Your task to perform on an android device: toggle improve location accuracy Image 0: 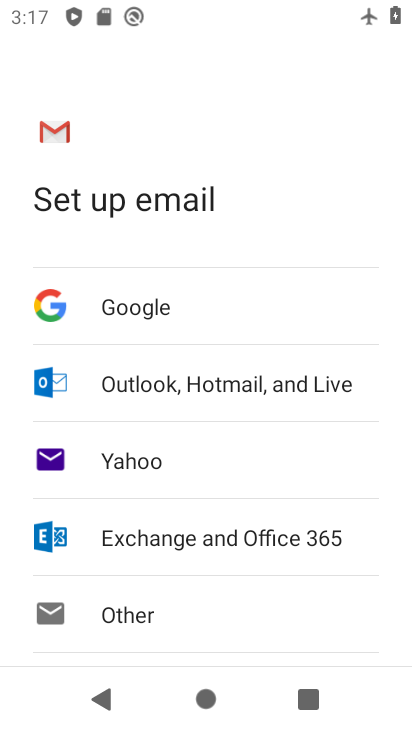
Step 0: press home button
Your task to perform on an android device: toggle improve location accuracy Image 1: 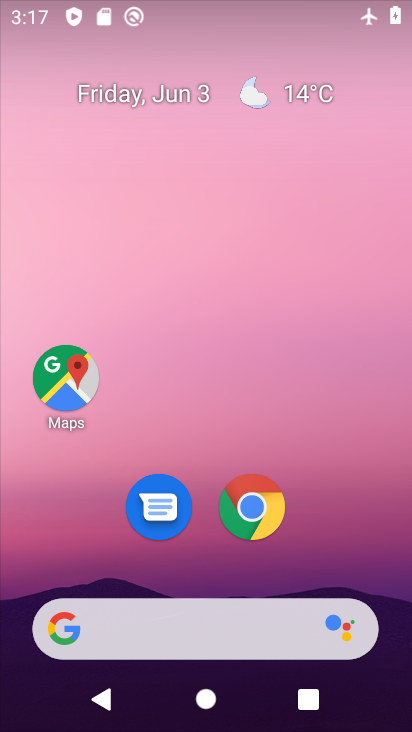
Step 1: drag from (301, 432) to (294, 20)
Your task to perform on an android device: toggle improve location accuracy Image 2: 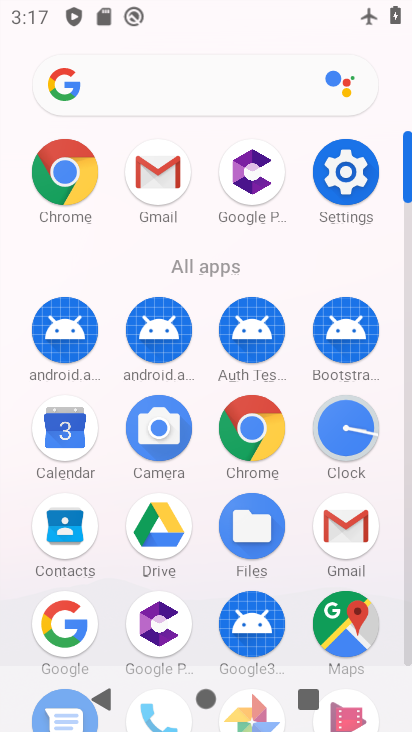
Step 2: click (334, 177)
Your task to perform on an android device: toggle improve location accuracy Image 3: 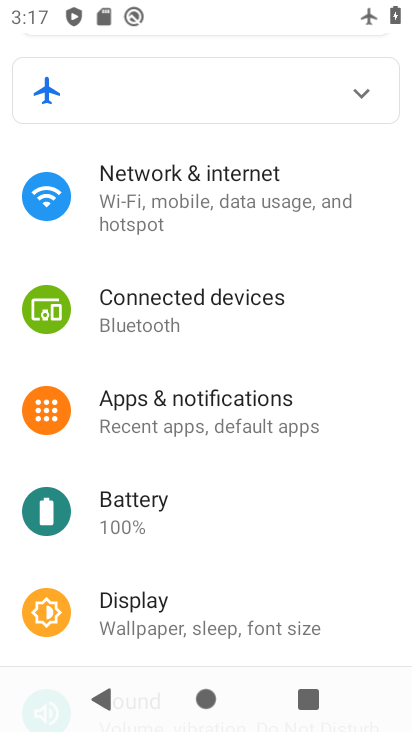
Step 3: drag from (360, 600) to (316, 128)
Your task to perform on an android device: toggle improve location accuracy Image 4: 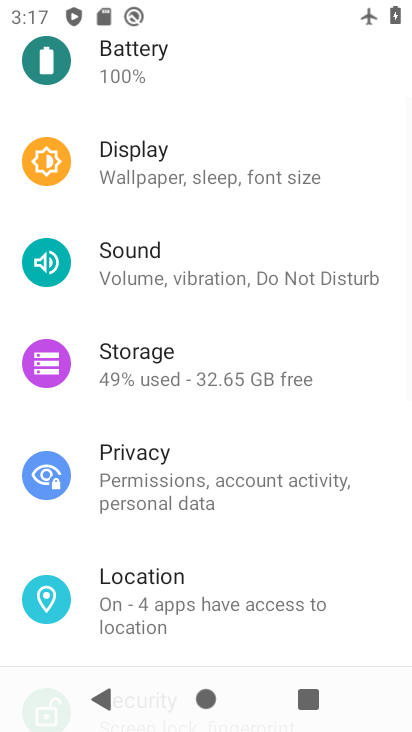
Step 4: click (224, 624)
Your task to perform on an android device: toggle improve location accuracy Image 5: 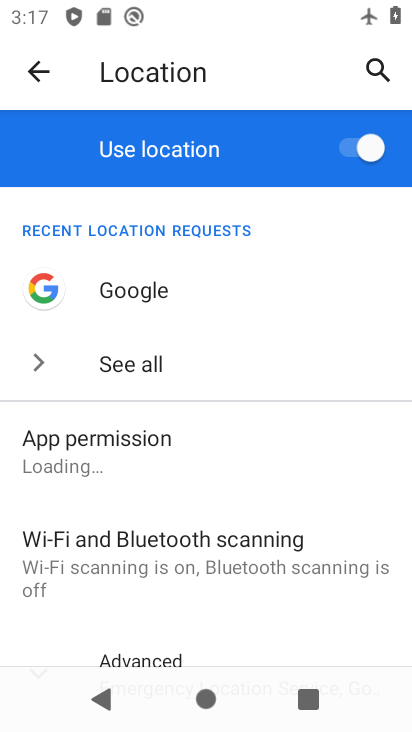
Step 5: drag from (340, 633) to (306, 208)
Your task to perform on an android device: toggle improve location accuracy Image 6: 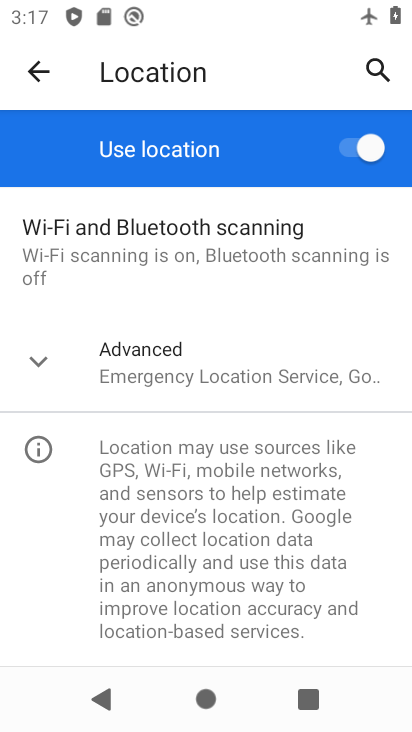
Step 6: click (33, 354)
Your task to perform on an android device: toggle improve location accuracy Image 7: 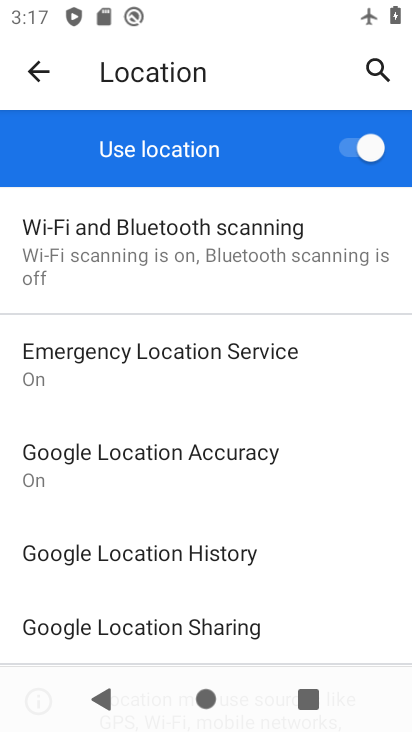
Step 7: click (189, 452)
Your task to perform on an android device: toggle improve location accuracy Image 8: 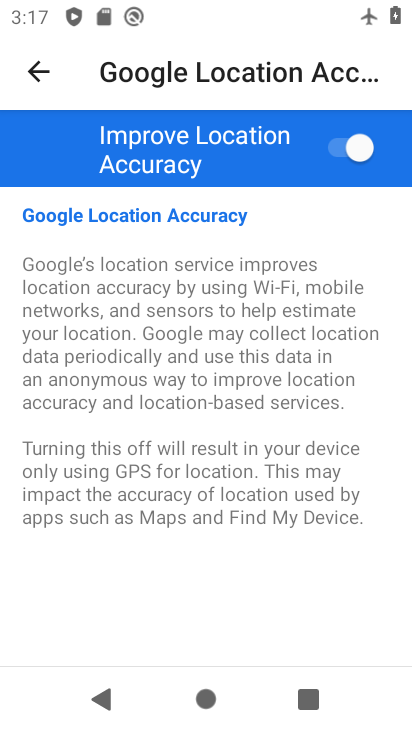
Step 8: click (366, 149)
Your task to perform on an android device: toggle improve location accuracy Image 9: 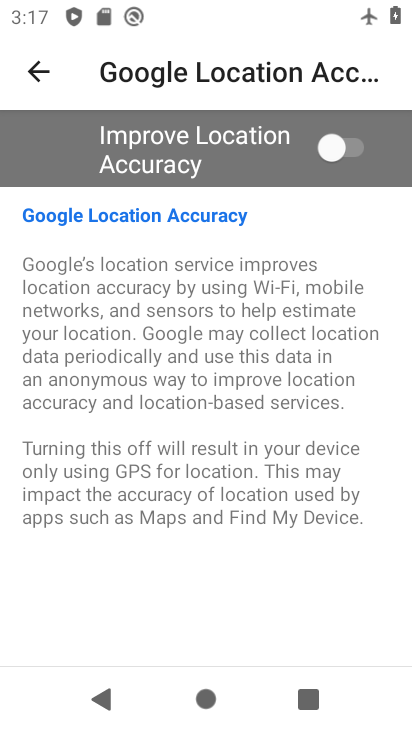
Step 9: task complete